Your task to perform on an android device: Check the weather Image 0: 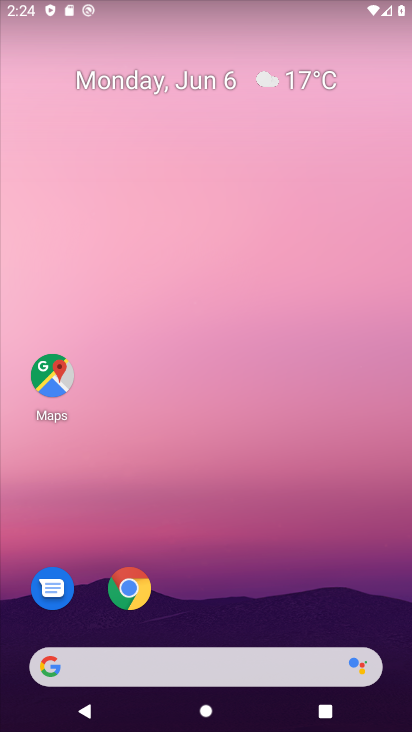
Step 0: drag from (213, 665) to (176, 167)
Your task to perform on an android device: Check the weather Image 1: 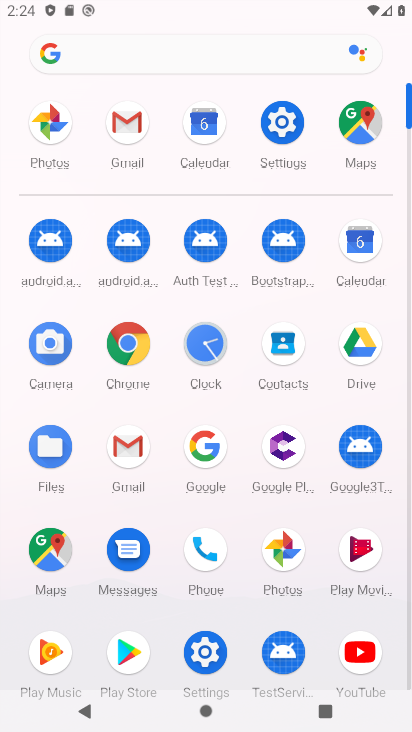
Step 1: click (207, 462)
Your task to perform on an android device: Check the weather Image 2: 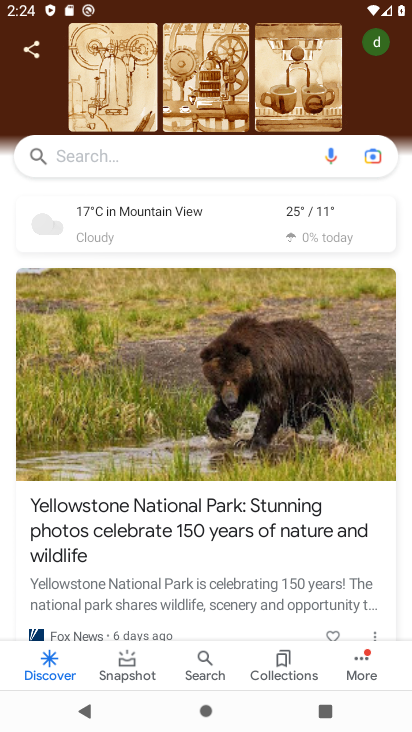
Step 2: click (62, 229)
Your task to perform on an android device: Check the weather Image 3: 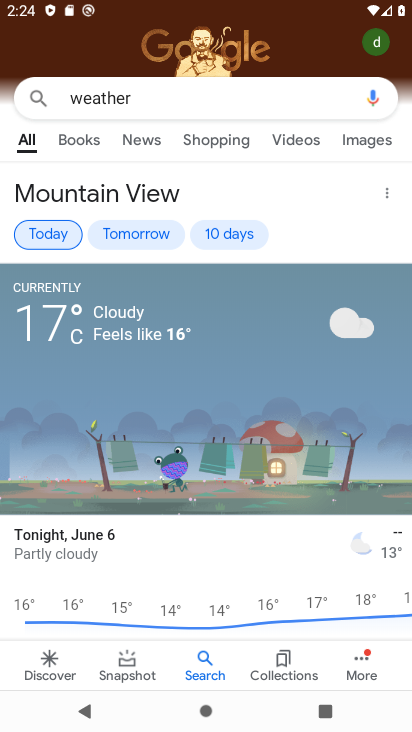
Step 3: task complete